Your task to perform on an android device: delete a single message in the gmail app Image 0: 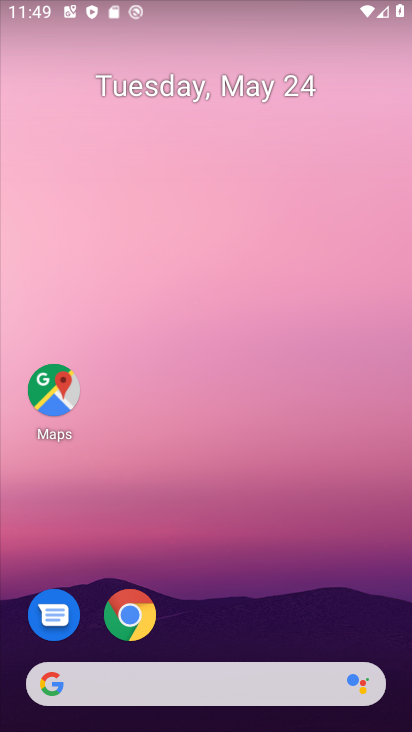
Step 0: drag from (247, 605) to (178, 154)
Your task to perform on an android device: delete a single message in the gmail app Image 1: 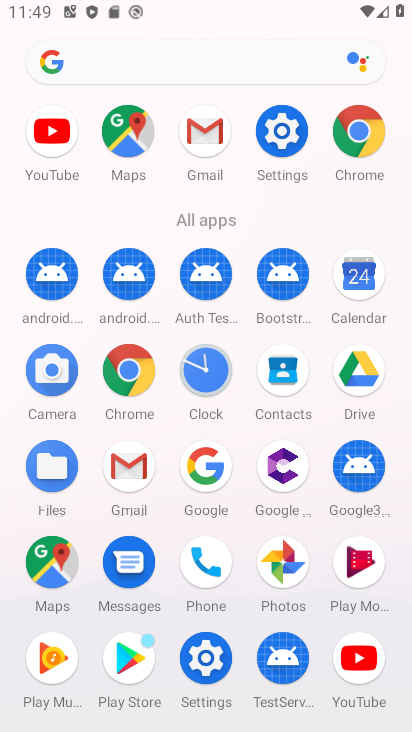
Step 1: click (203, 127)
Your task to perform on an android device: delete a single message in the gmail app Image 2: 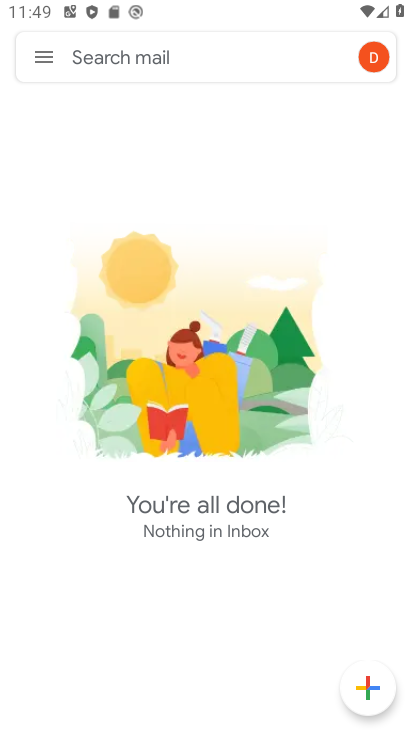
Step 2: click (40, 60)
Your task to perform on an android device: delete a single message in the gmail app Image 3: 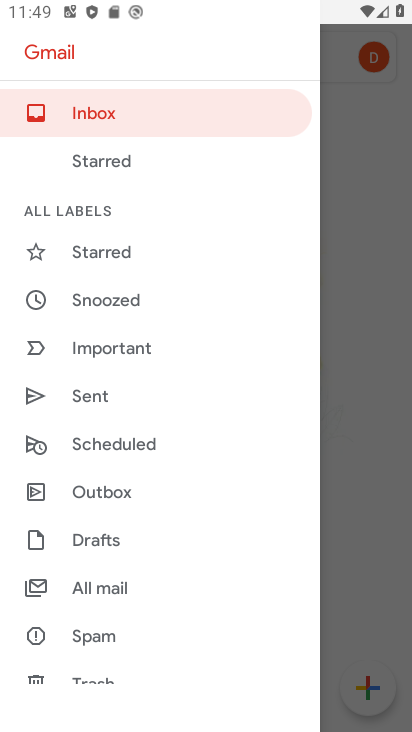
Step 3: drag from (120, 421) to (159, 331)
Your task to perform on an android device: delete a single message in the gmail app Image 4: 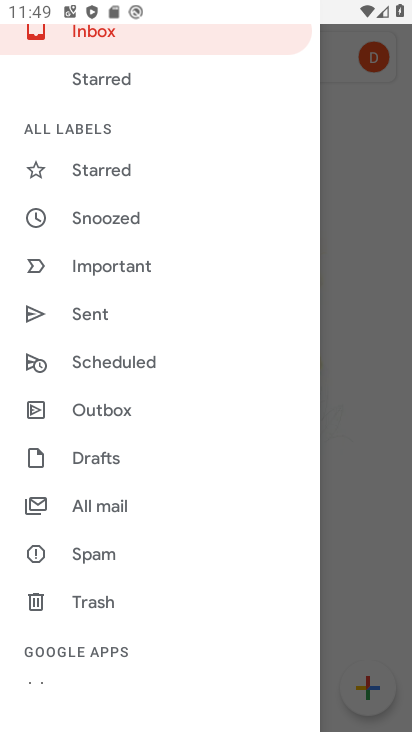
Step 4: click (114, 500)
Your task to perform on an android device: delete a single message in the gmail app Image 5: 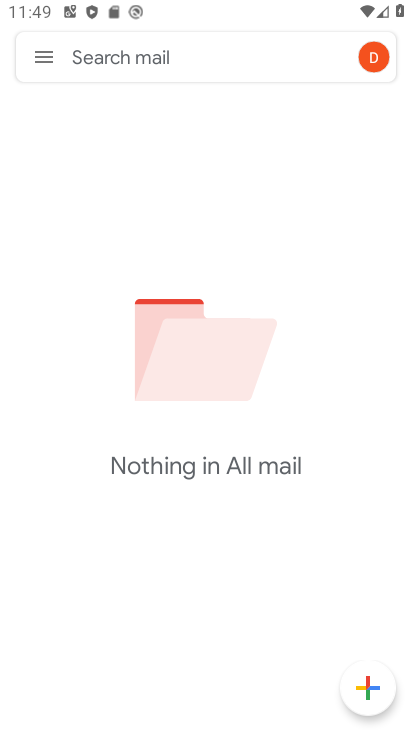
Step 5: click (47, 66)
Your task to perform on an android device: delete a single message in the gmail app Image 6: 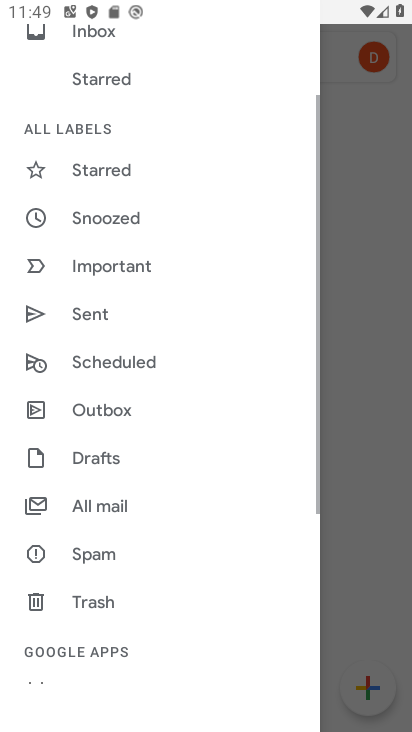
Step 6: drag from (127, 459) to (162, 378)
Your task to perform on an android device: delete a single message in the gmail app Image 7: 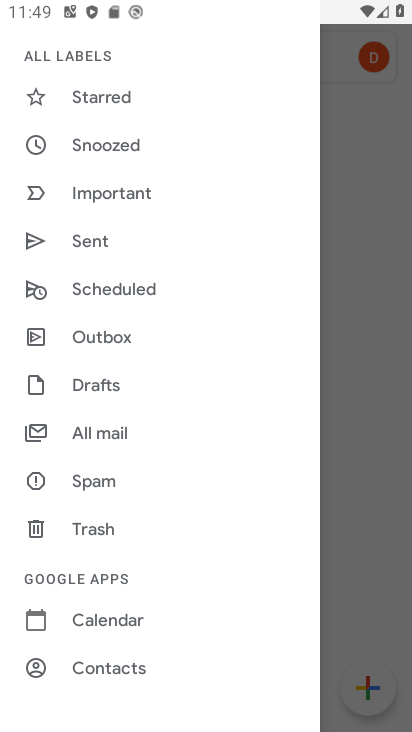
Step 7: drag from (141, 532) to (173, 439)
Your task to perform on an android device: delete a single message in the gmail app Image 8: 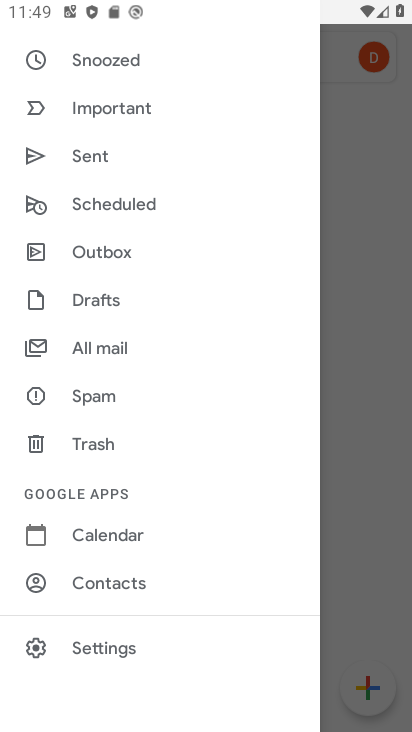
Step 8: drag from (127, 522) to (188, 435)
Your task to perform on an android device: delete a single message in the gmail app Image 9: 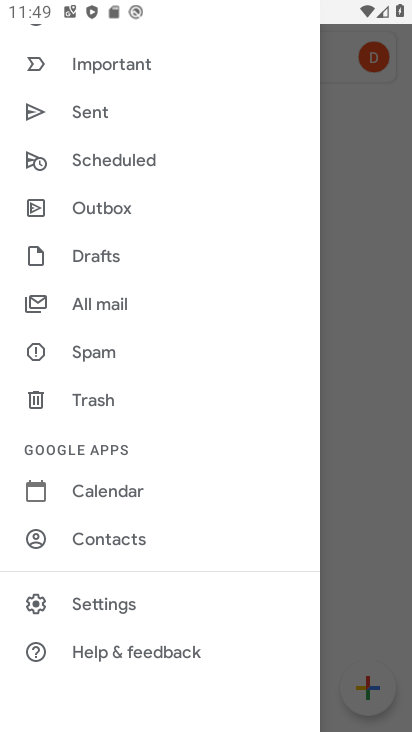
Step 9: click (100, 390)
Your task to perform on an android device: delete a single message in the gmail app Image 10: 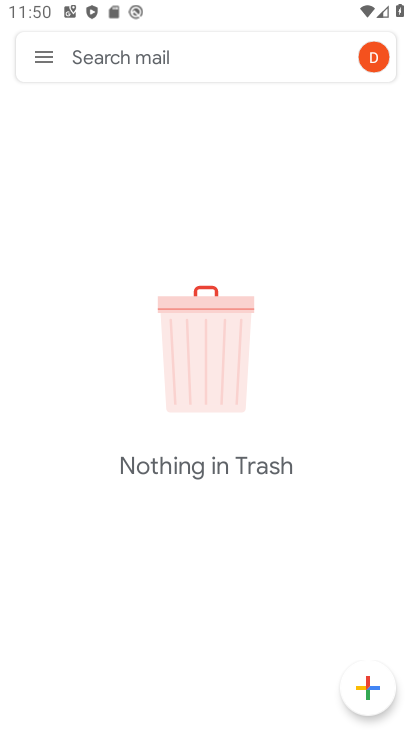
Step 10: task complete